Your task to perform on an android device: open app "Indeed Job Search" (install if not already installed) and go to login screen Image 0: 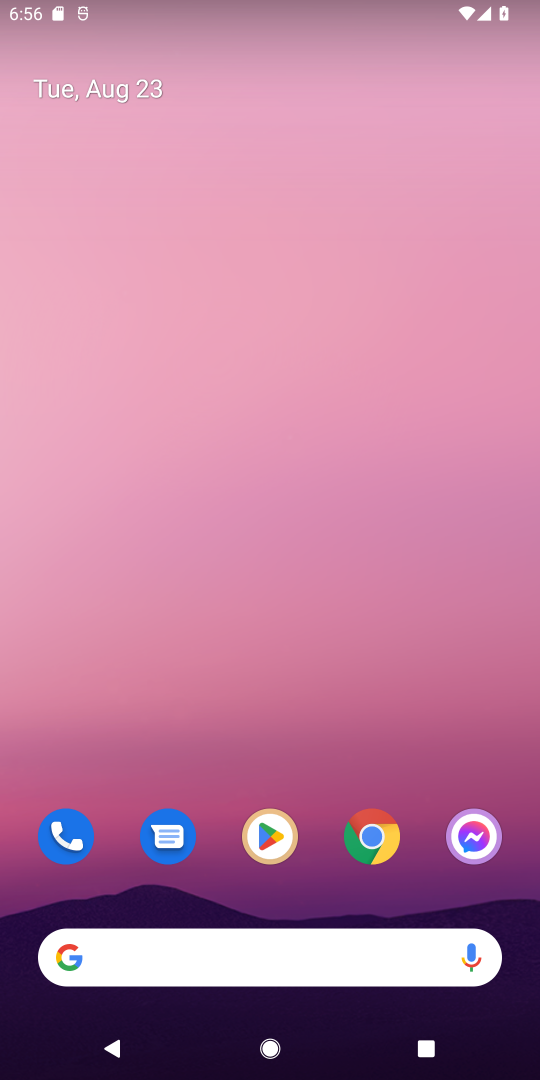
Step 0: click (264, 834)
Your task to perform on an android device: open app "Indeed Job Search" (install if not already installed) and go to login screen Image 1: 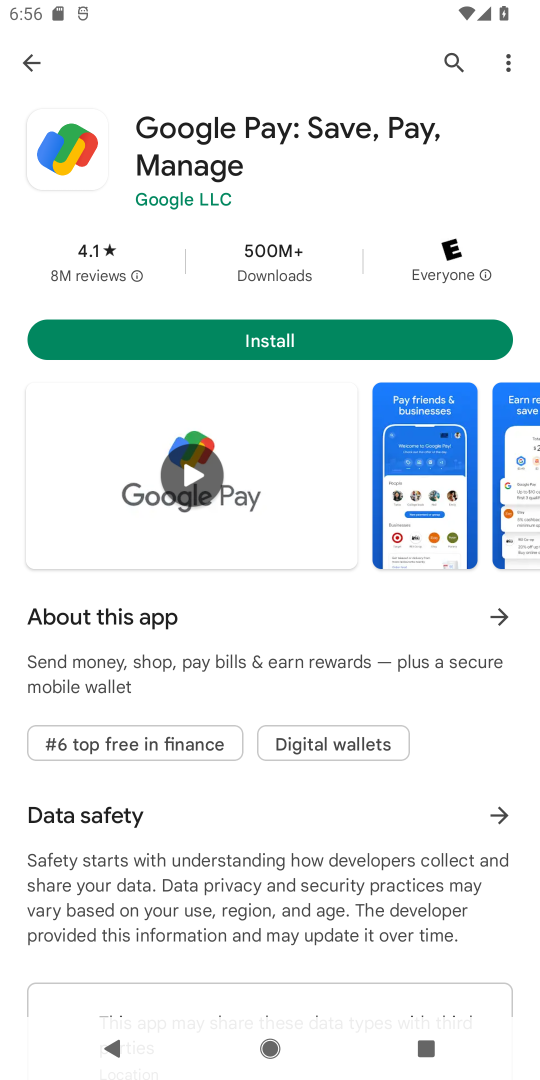
Step 1: click (449, 46)
Your task to perform on an android device: open app "Indeed Job Search" (install if not already installed) and go to login screen Image 2: 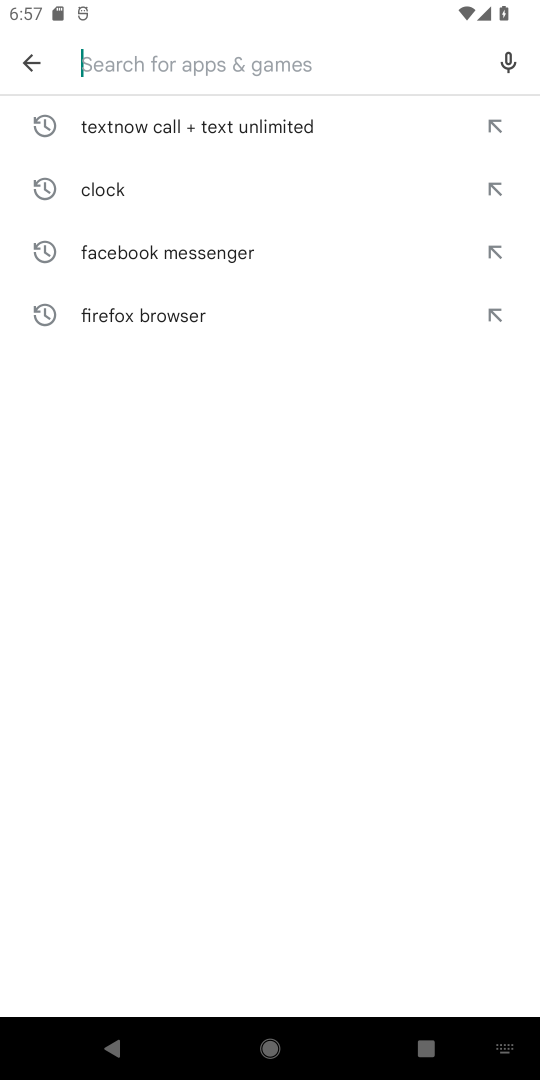
Step 2: type "Indeed Job Search"
Your task to perform on an android device: open app "Indeed Job Search" (install if not already installed) and go to login screen Image 3: 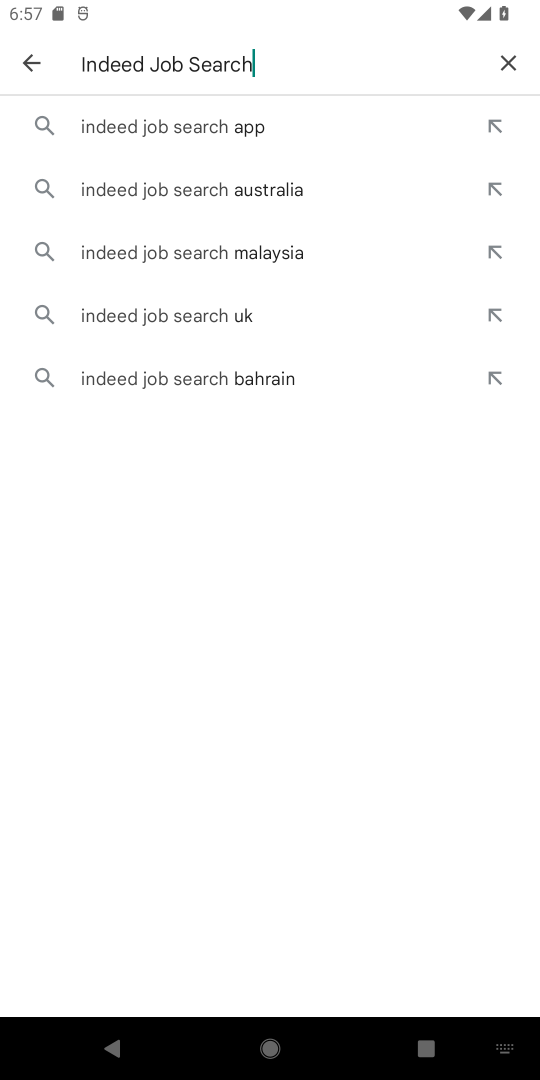
Step 3: click (175, 129)
Your task to perform on an android device: open app "Indeed Job Search" (install if not already installed) and go to login screen Image 4: 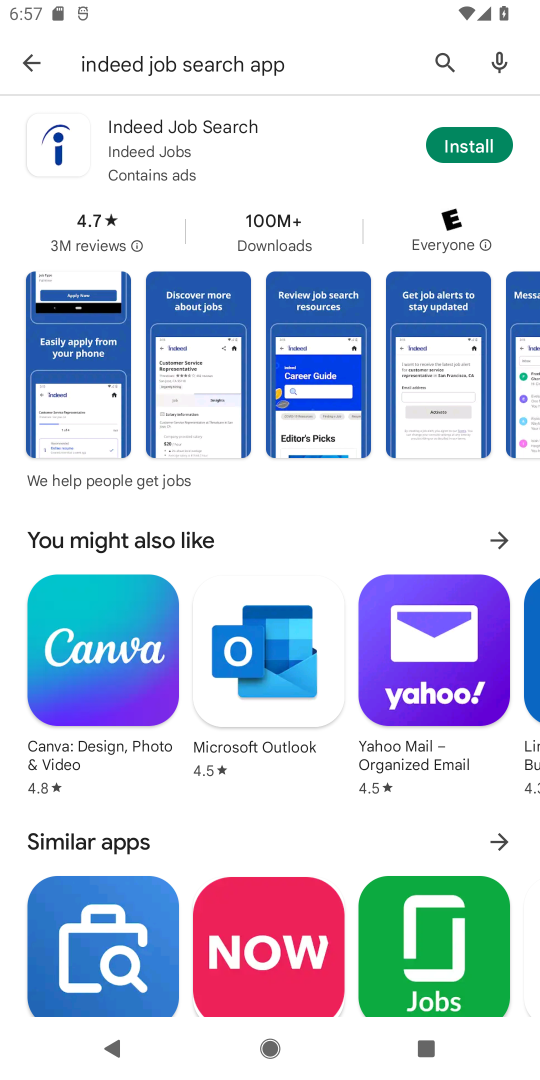
Step 4: click (465, 146)
Your task to perform on an android device: open app "Indeed Job Search" (install if not already installed) and go to login screen Image 5: 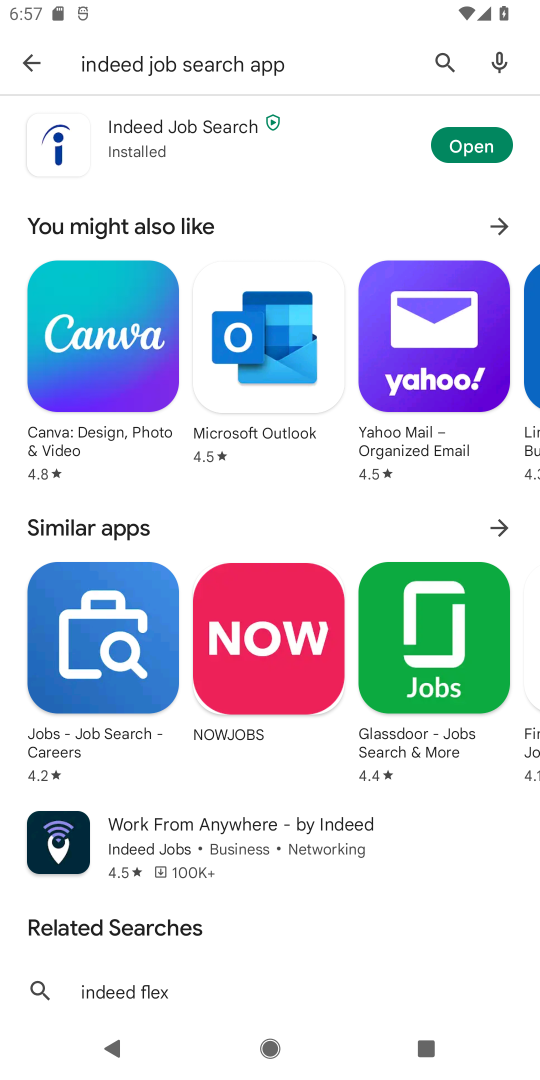
Step 5: click (480, 145)
Your task to perform on an android device: open app "Indeed Job Search" (install if not already installed) and go to login screen Image 6: 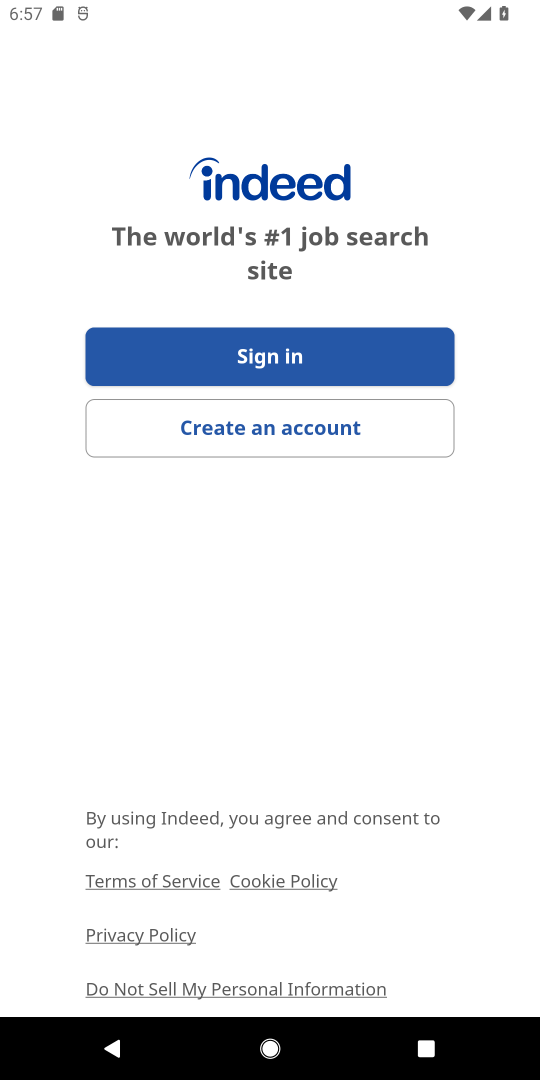
Step 6: click (265, 361)
Your task to perform on an android device: open app "Indeed Job Search" (install if not already installed) and go to login screen Image 7: 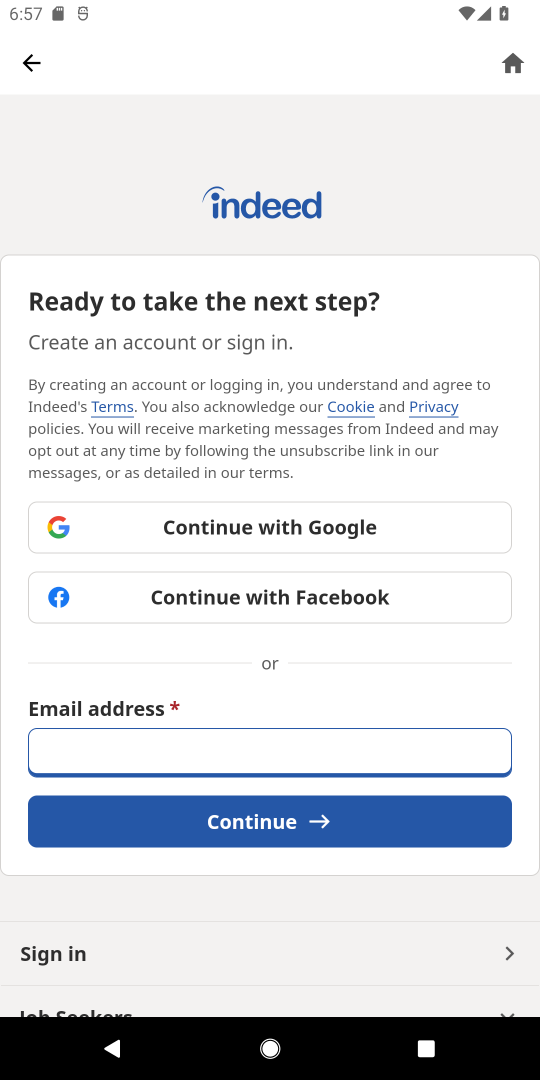
Step 7: task complete